Your task to perform on an android device: What's the weather going to be this weekend? Image 0: 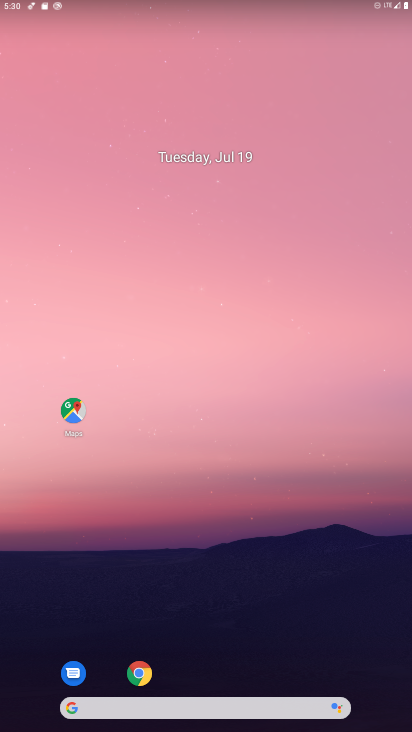
Step 0: press home button
Your task to perform on an android device: What's the weather going to be this weekend? Image 1: 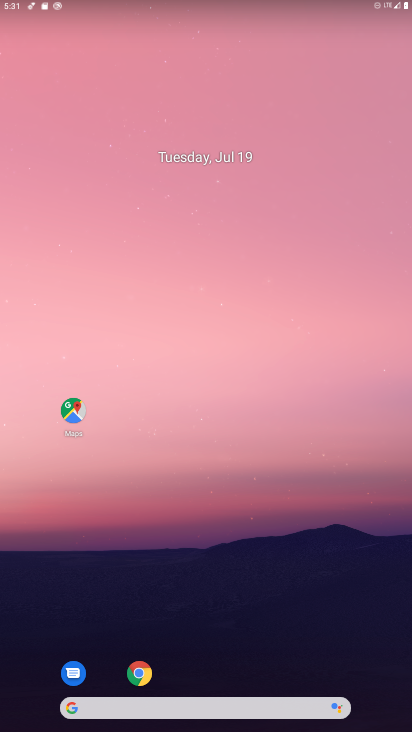
Step 1: click (182, 701)
Your task to perform on an android device: What's the weather going to be this weekend? Image 2: 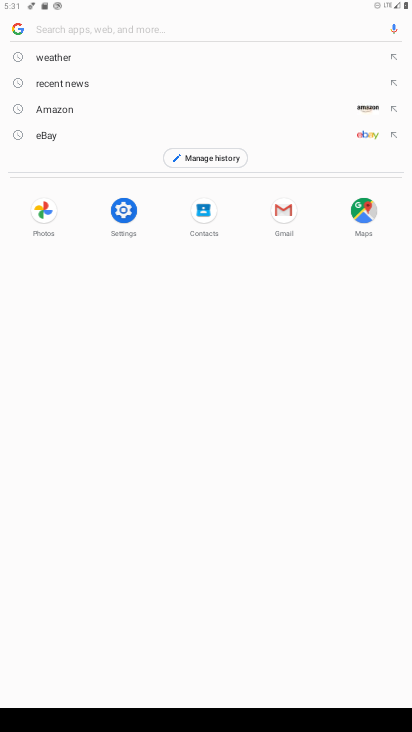
Step 2: type "weather"
Your task to perform on an android device: What's the weather going to be this weekend? Image 3: 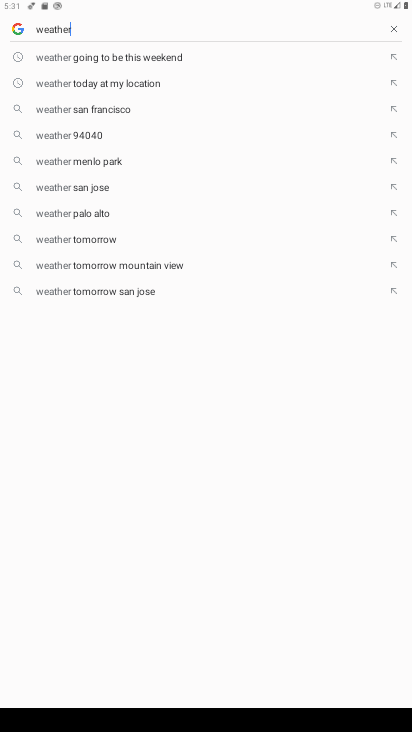
Step 3: click (115, 45)
Your task to perform on an android device: What's the weather going to be this weekend? Image 4: 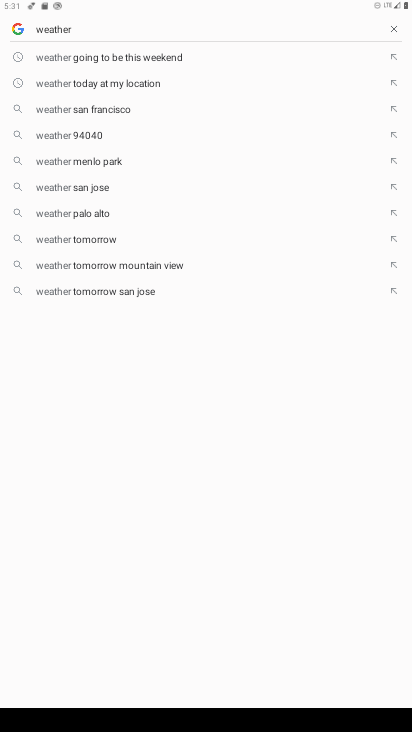
Step 4: click (119, 53)
Your task to perform on an android device: What's the weather going to be this weekend? Image 5: 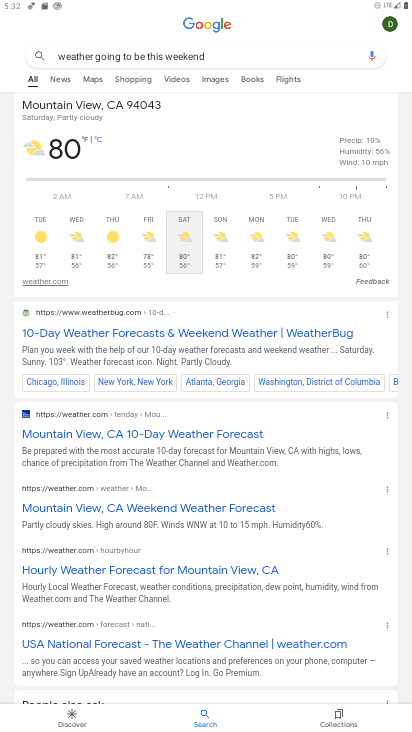
Step 5: task complete